Your task to perform on an android device: Open Amazon Image 0: 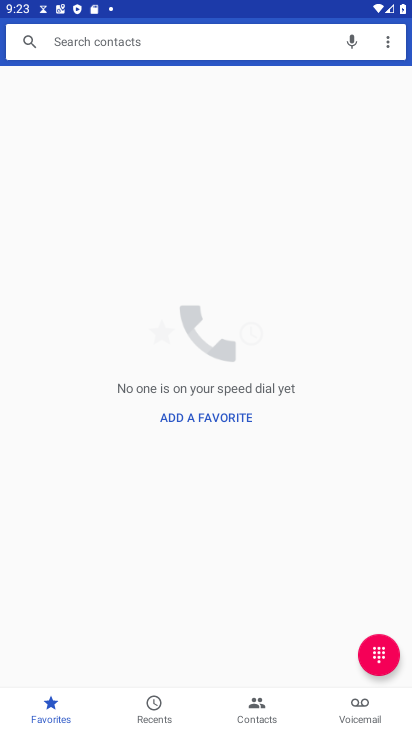
Step 0: press back button
Your task to perform on an android device: Open Amazon Image 1: 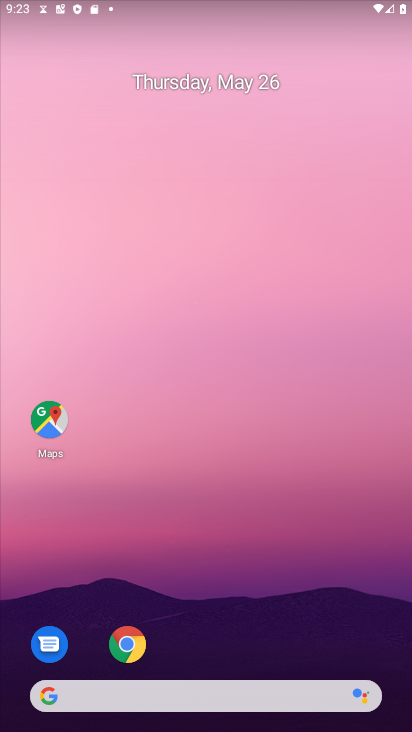
Step 1: click (139, 635)
Your task to perform on an android device: Open Amazon Image 2: 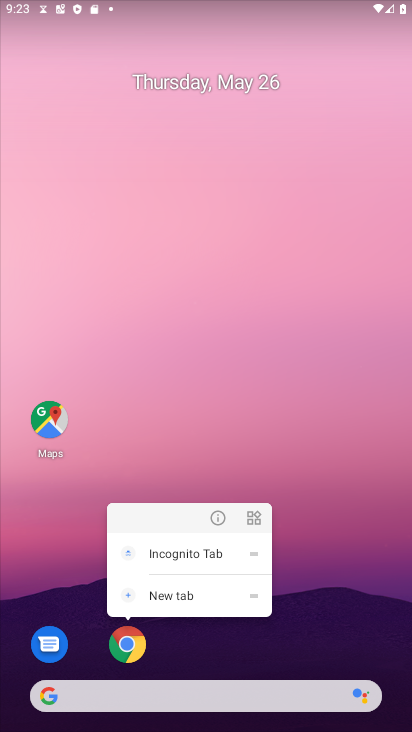
Step 2: click (130, 645)
Your task to perform on an android device: Open Amazon Image 3: 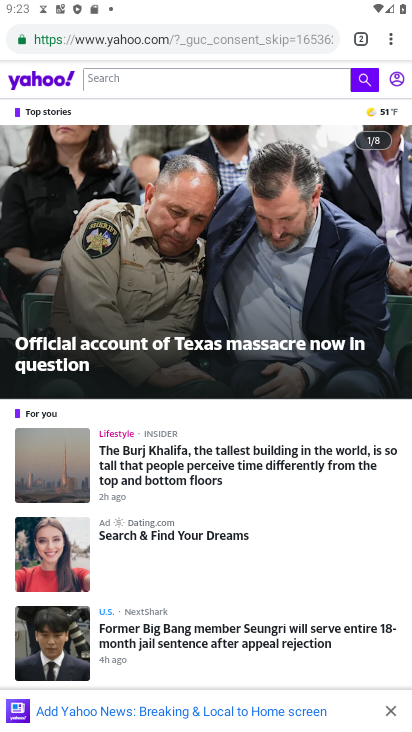
Step 3: click (358, 35)
Your task to perform on an android device: Open Amazon Image 4: 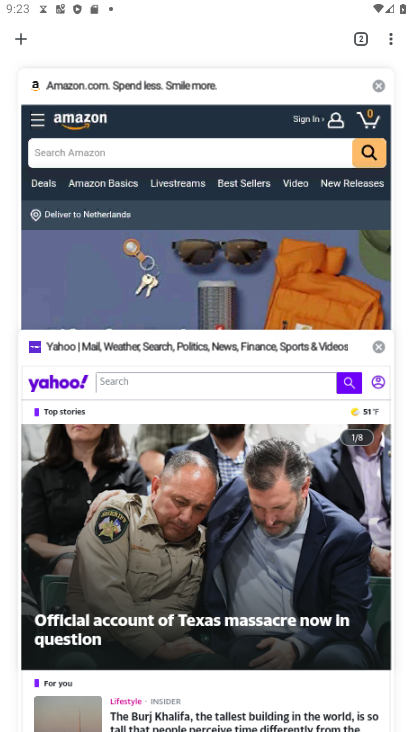
Step 4: click (87, 128)
Your task to perform on an android device: Open Amazon Image 5: 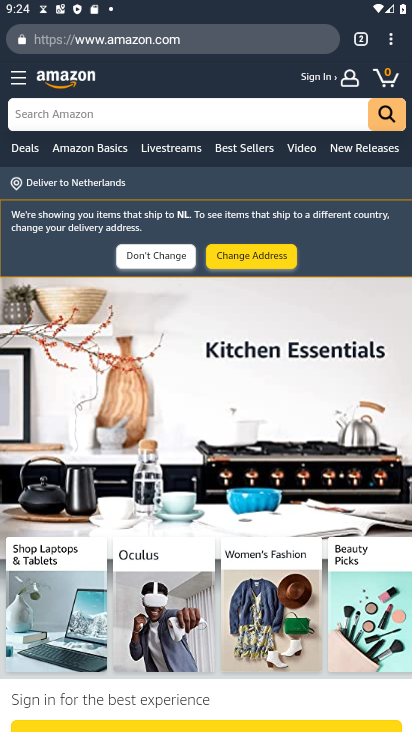
Step 5: task complete